Your task to perform on an android device: Open Google Image 0: 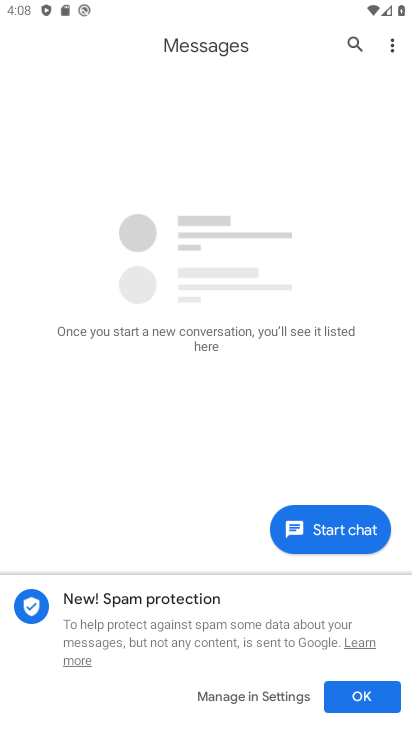
Step 0: press home button
Your task to perform on an android device: Open Google Image 1: 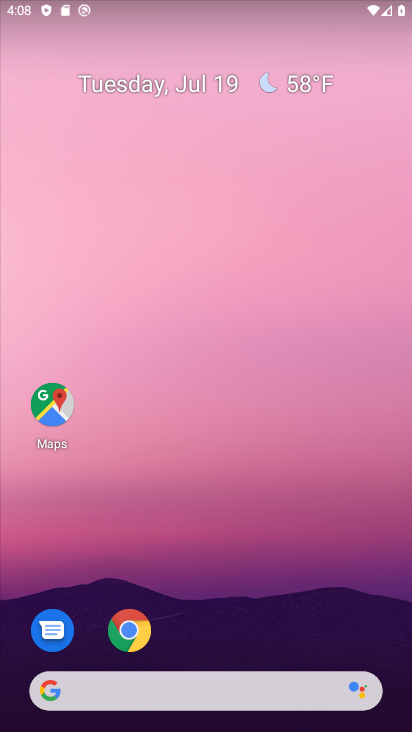
Step 1: click (129, 685)
Your task to perform on an android device: Open Google Image 2: 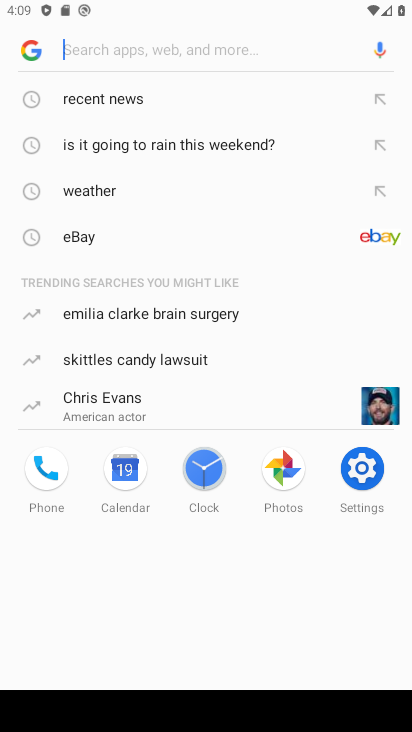
Step 2: task complete